Your task to perform on an android device: Open sound settings Image 0: 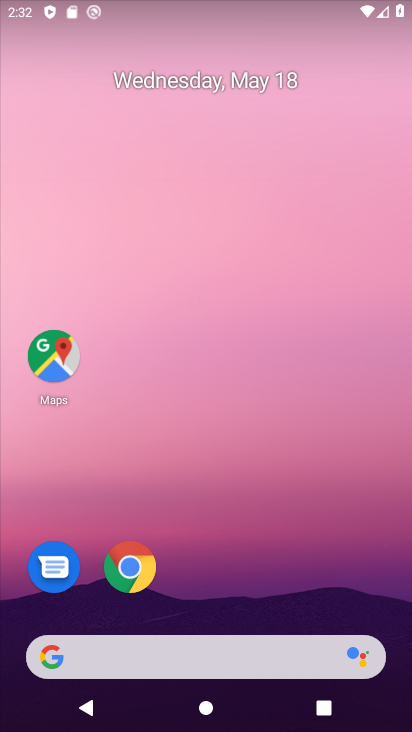
Step 0: drag from (239, 568) to (235, 175)
Your task to perform on an android device: Open sound settings Image 1: 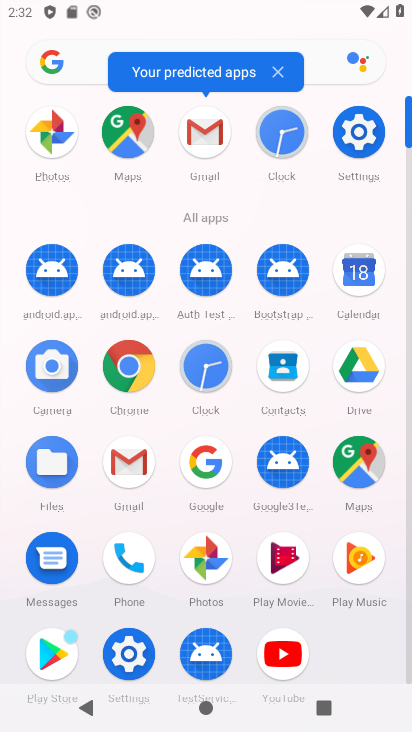
Step 1: click (360, 145)
Your task to perform on an android device: Open sound settings Image 2: 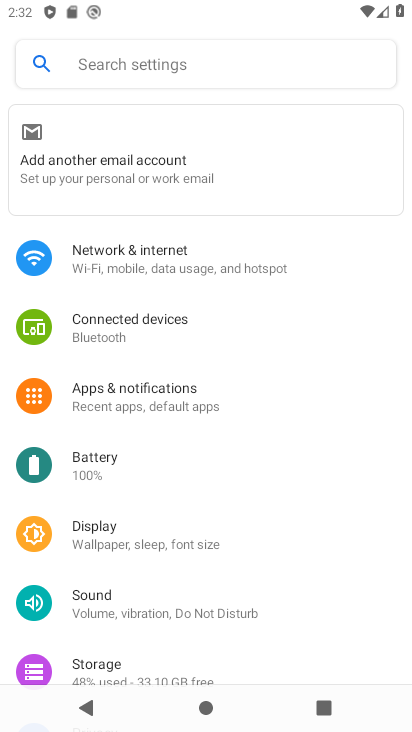
Step 2: click (117, 612)
Your task to perform on an android device: Open sound settings Image 3: 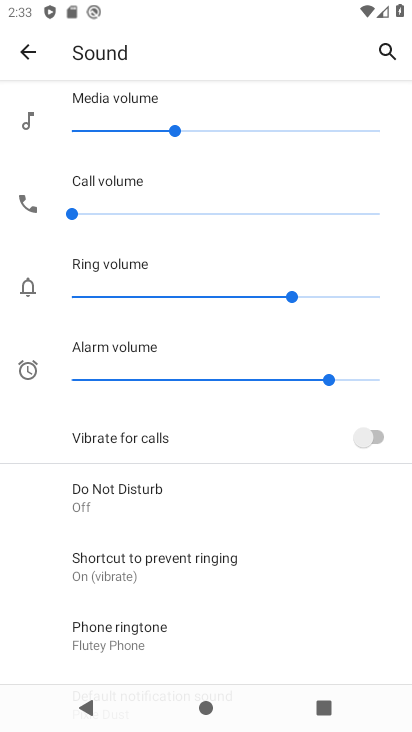
Step 3: task complete